Your task to perform on an android device: turn pop-ups on in chrome Image 0: 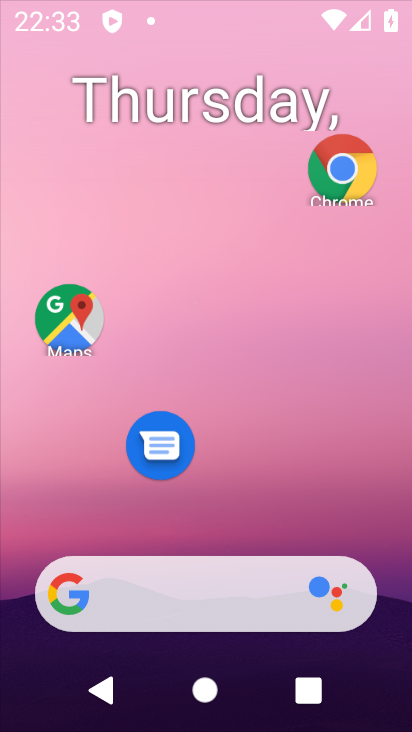
Step 0: click (263, 125)
Your task to perform on an android device: turn pop-ups on in chrome Image 1: 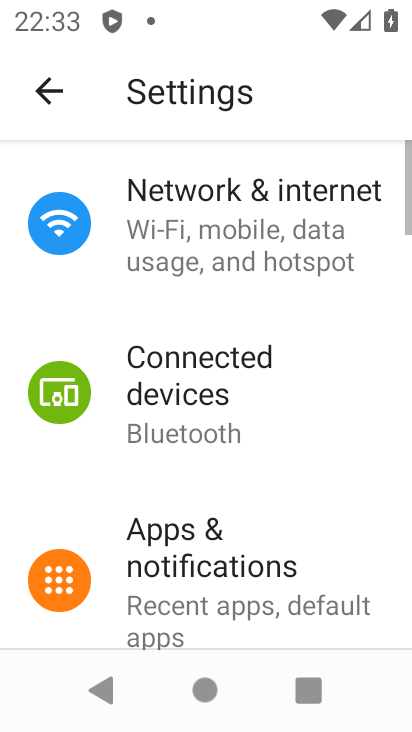
Step 1: drag from (177, 544) to (241, 139)
Your task to perform on an android device: turn pop-ups on in chrome Image 2: 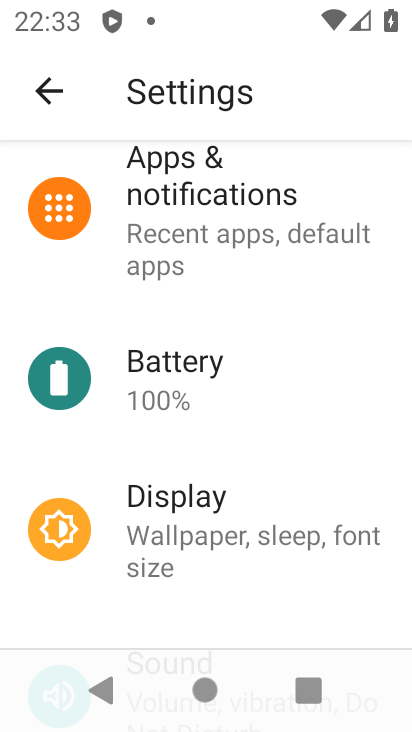
Step 2: drag from (202, 203) to (243, 354)
Your task to perform on an android device: turn pop-ups on in chrome Image 3: 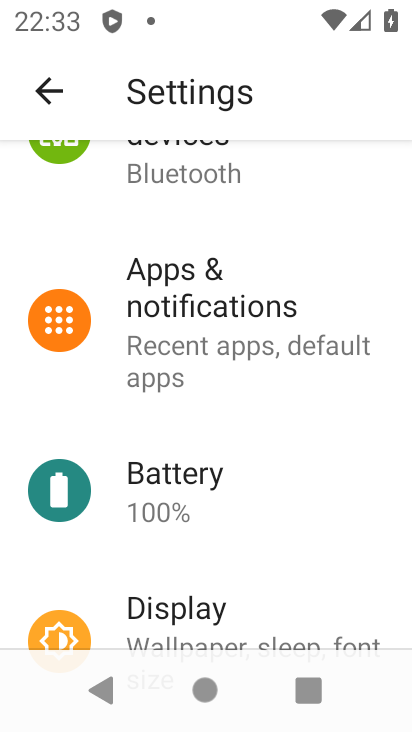
Step 3: click (213, 331)
Your task to perform on an android device: turn pop-ups on in chrome Image 4: 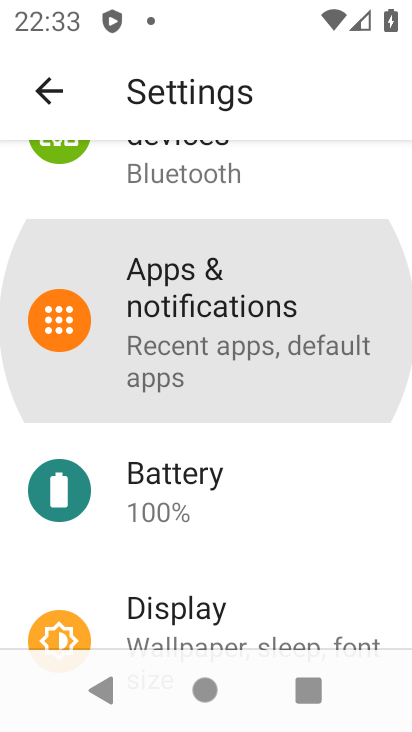
Step 4: click (213, 331)
Your task to perform on an android device: turn pop-ups on in chrome Image 5: 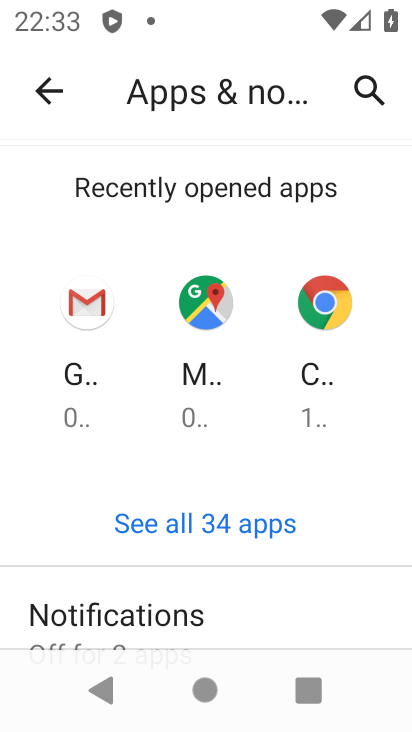
Step 5: press home button
Your task to perform on an android device: turn pop-ups on in chrome Image 6: 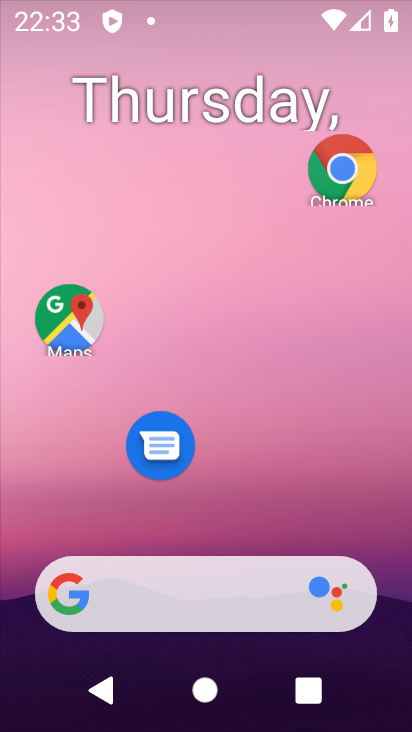
Step 6: drag from (210, 546) to (267, 112)
Your task to perform on an android device: turn pop-ups on in chrome Image 7: 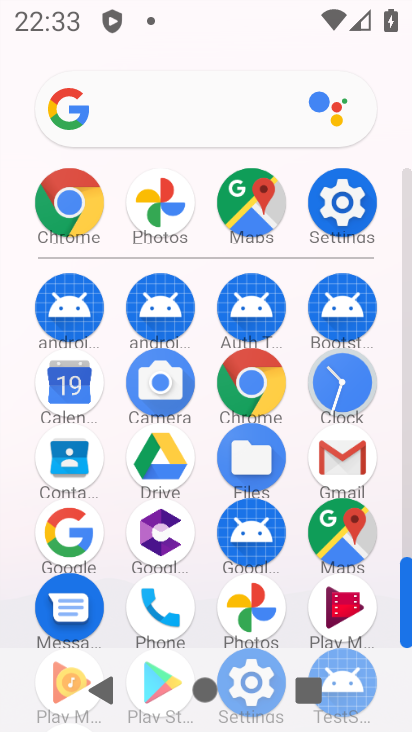
Step 7: click (258, 383)
Your task to perform on an android device: turn pop-ups on in chrome Image 8: 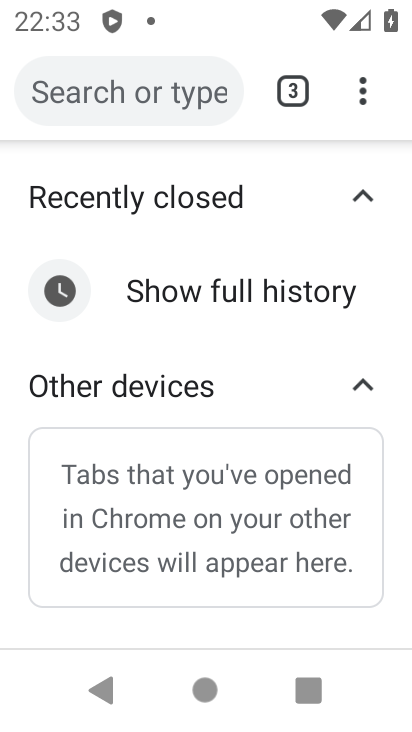
Step 8: click (367, 85)
Your task to perform on an android device: turn pop-ups on in chrome Image 9: 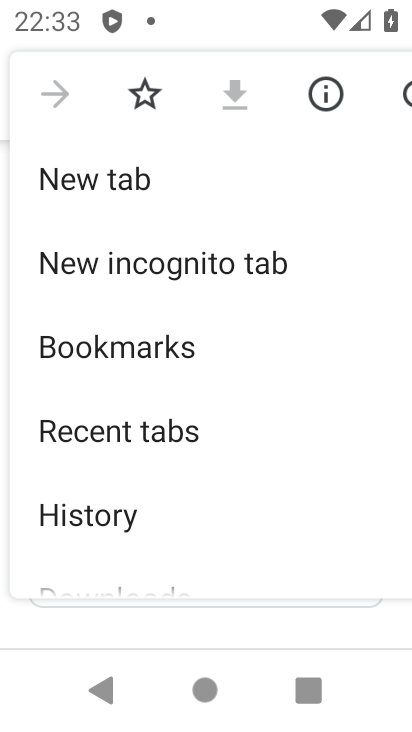
Step 9: drag from (214, 529) to (226, 177)
Your task to perform on an android device: turn pop-ups on in chrome Image 10: 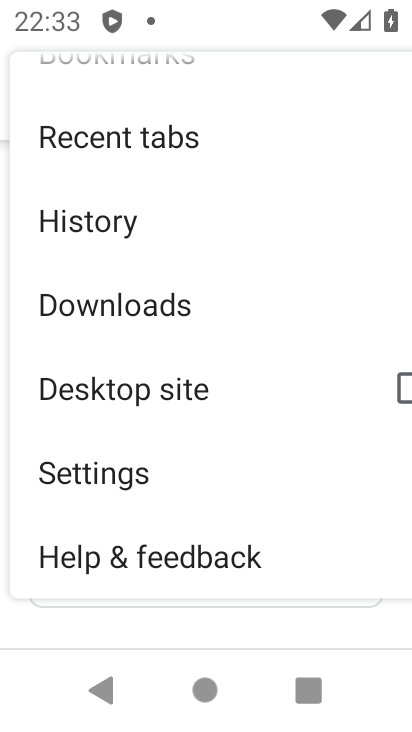
Step 10: drag from (198, 486) to (195, 225)
Your task to perform on an android device: turn pop-ups on in chrome Image 11: 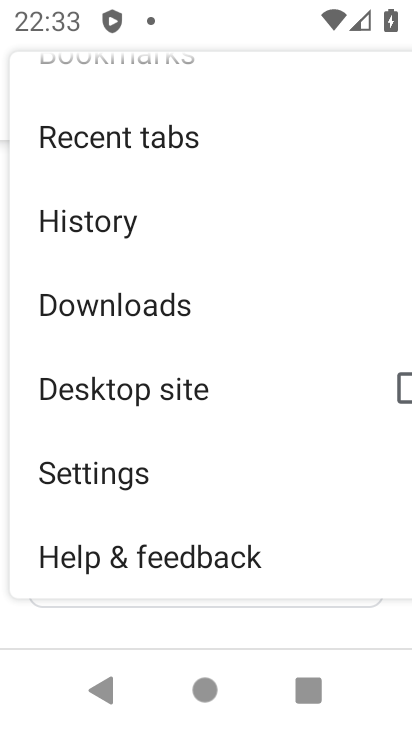
Step 11: click (141, 470)
Your task to perform on an android device: turn pop-ups on in chrome Image 12: 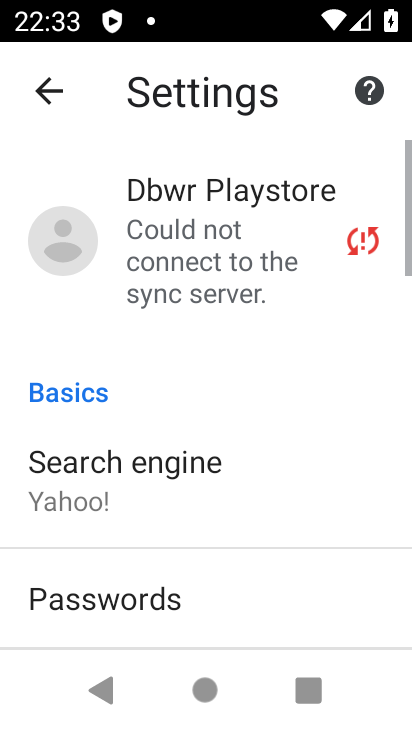
Step 12: drag from (193, 464) to (314, 100)
Your task to perform on an android device: turn pop-ups on in chrome Image 13: 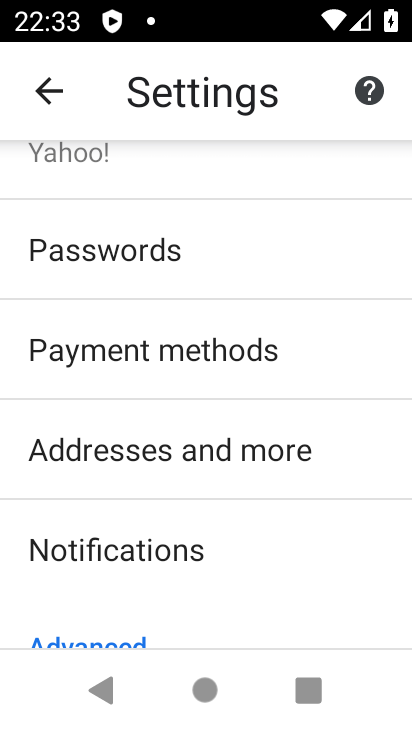
Step 13: drag from (169, 546) to (281, 140)
Your task to perform on an android device: turn pop-ups on in chrome Image 14: 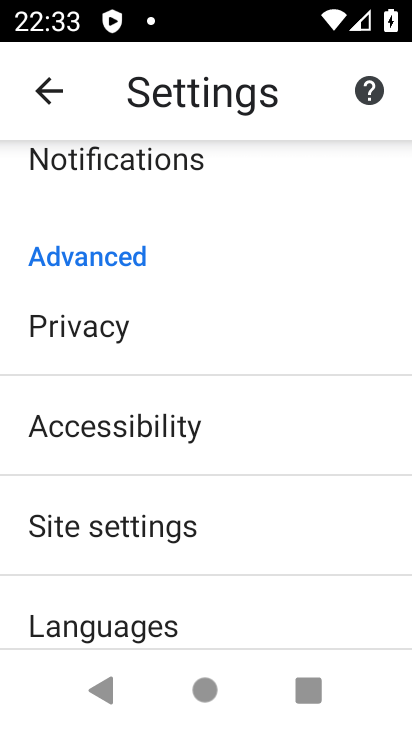
Step 14: drag from (226, 536) to (284, 237)
Your task to perform on an android device: turn pop-ups on in chrome Image 15: 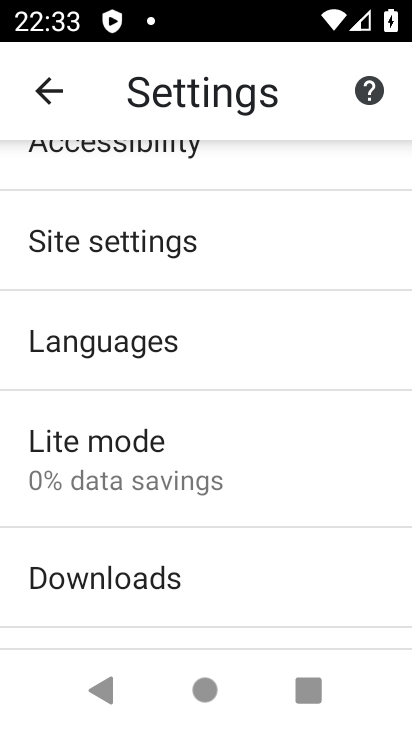
Step 15: click (170, 243)
Your task to perform on an android device: turn pop-ups on in chrome Image 16: 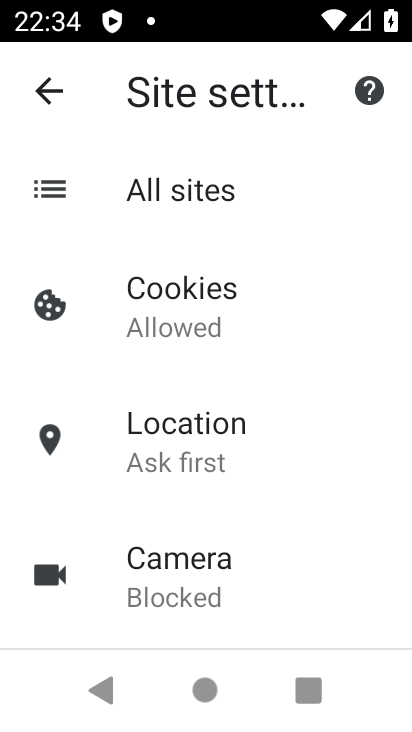
Step 16: drag from (280, 515) to (288, 198)
Your task to perform on an android device: turn pop-ups on in chrome Image 17: 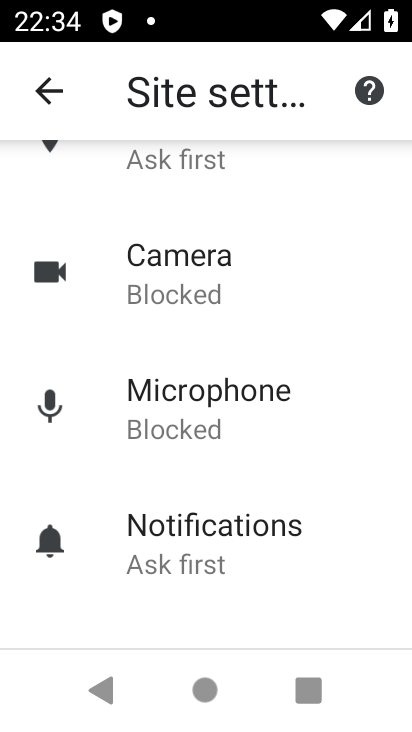
Step 17: drag from (223, 469) to (252, 230)
Your task to perform on an android device: turn pop-ups on in chrome Image 18: 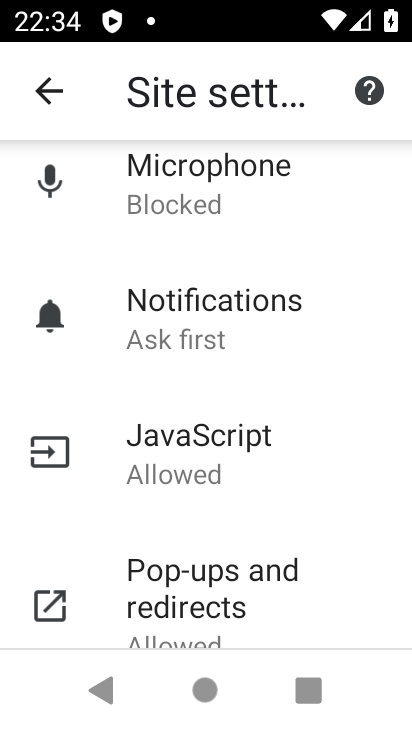
Step 18: click (220, 577)
Your task to perform on an android device: turn pop-ups on in chrome Image 19: 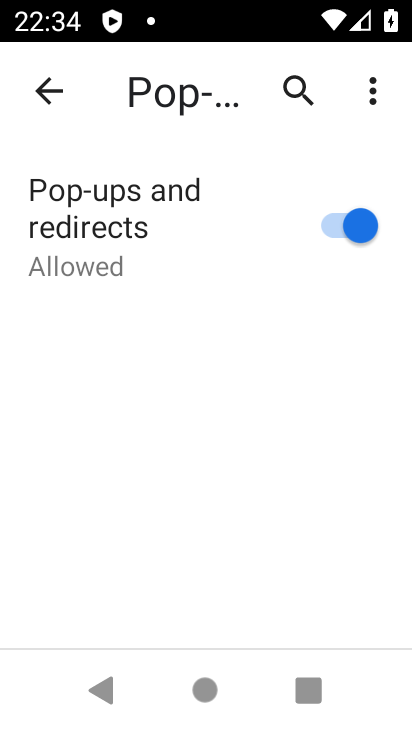
Step 19: task complete